Your task to perform on an android device: Open Youtube and go to the subscriptions tab Image 0: 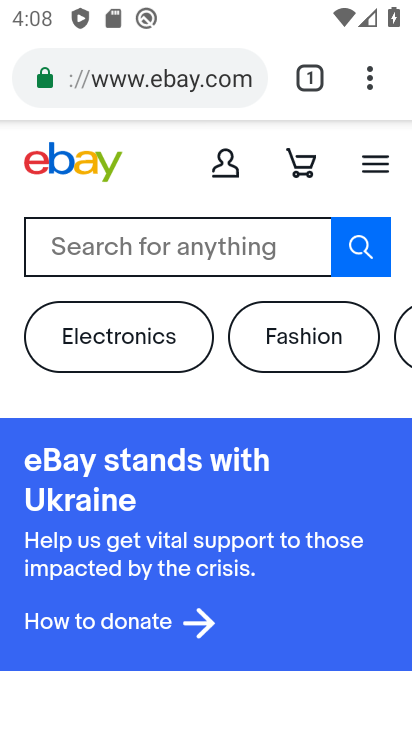
Step 0: press home button
Your task to perform on an android device: Open Youtube and go to the subscriptions tab Image 1: 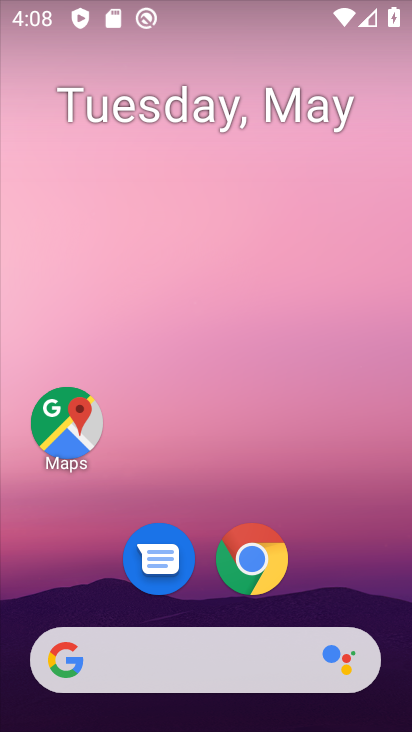
Step 1: drag from (300, 517) to (269, 64)
Your task to perform on an android device: Open Youtube and go to the subscriptions tab Image 2: 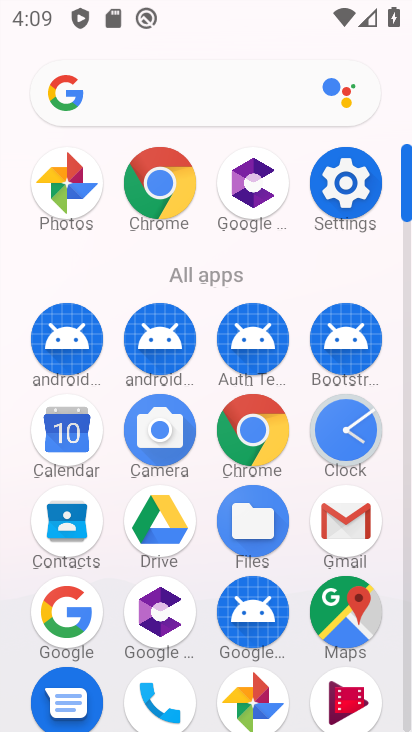
Step 2: drag from (209, 304) to (190, 42)
Your task to perform on an android device: Open Youtube and go to the subscriptions tab Image 3: 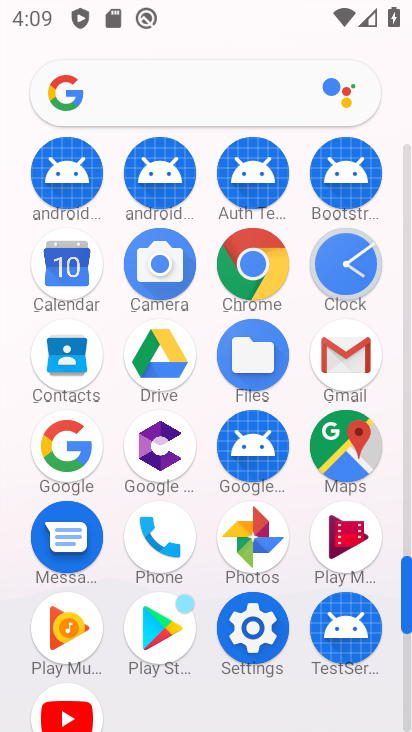
Step 3: click (75, 712)
Your task to perform on an android device: Open Youtube and go to the subscriptions tab Image 4: 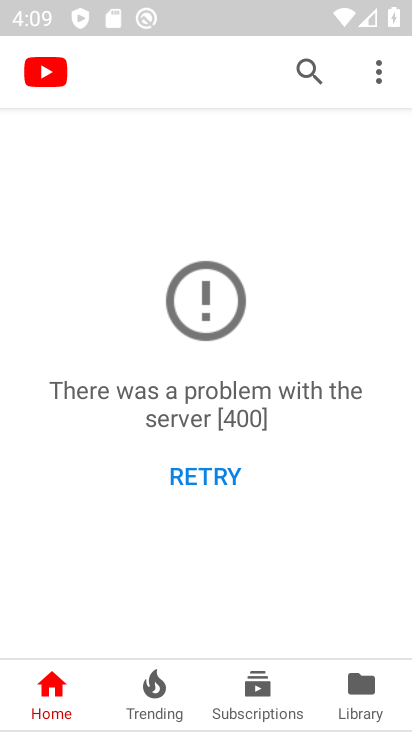
Step 4: click (252, 690)
Your task to perform on an android device: Open Youtube and go to the subscriptions tab Image 5: 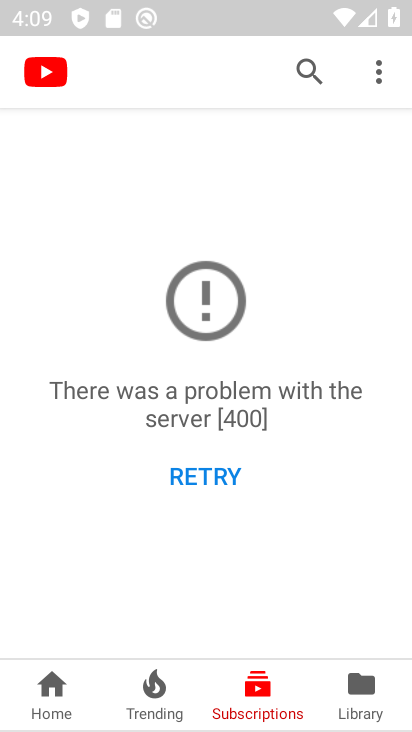
Step 5: task complete